Your task to perform on an android device: see sites visited before in the chrome app Image 0: 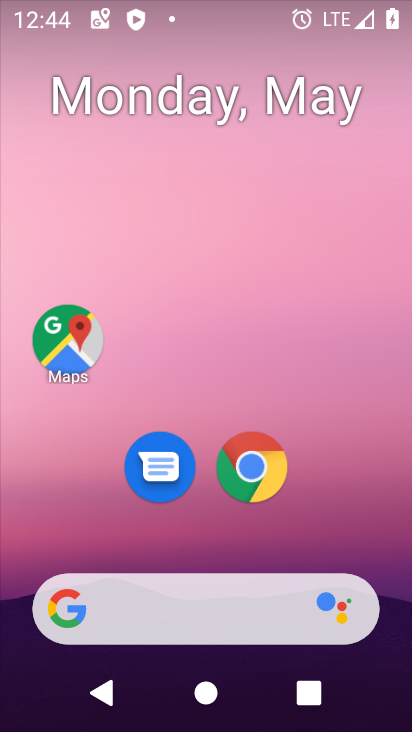
Step 0: click (256, 472)
Your task to perform on an android device: see sites visited before in the chrome app Image 1: 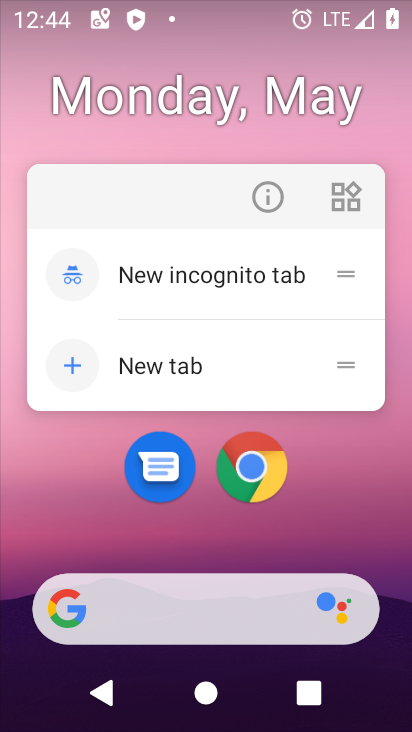
Step 1: click (256, 472)
Your task to perform on an android device: see sites visited before in the chrome app Image 2: 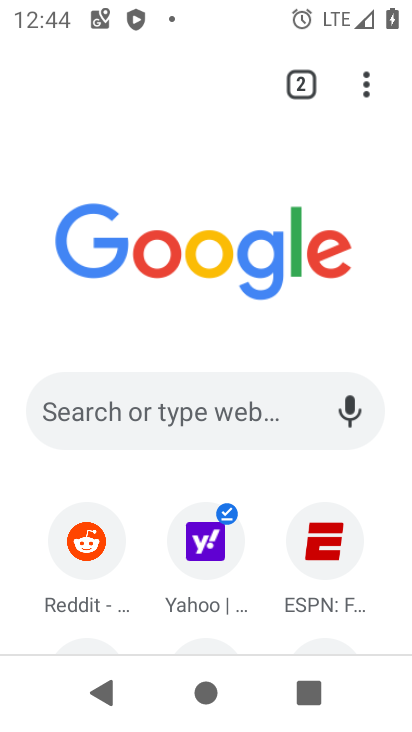
Step 2: click (368, 83)
Your task to perform on an android device: see sites visited before in the chrome app Image 3: 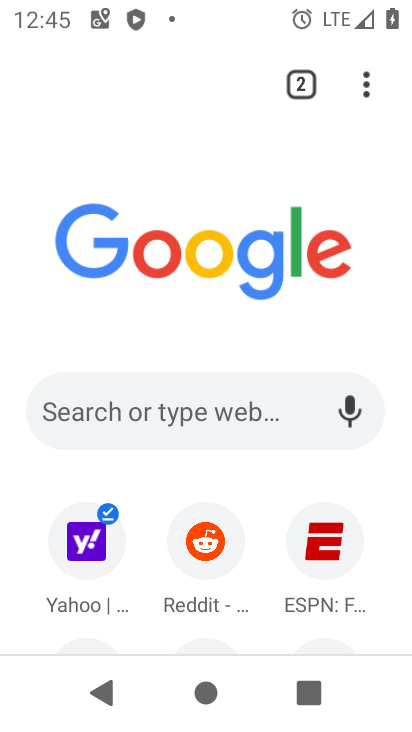
Step 3: task complete